Your task to perform on an android device: Open Google Image 0: 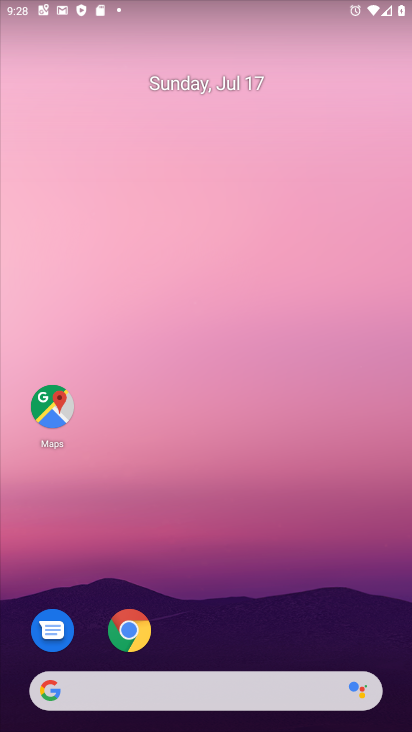
Step 0: press home button
Your task to perform on an android device: Open Google Image 1: 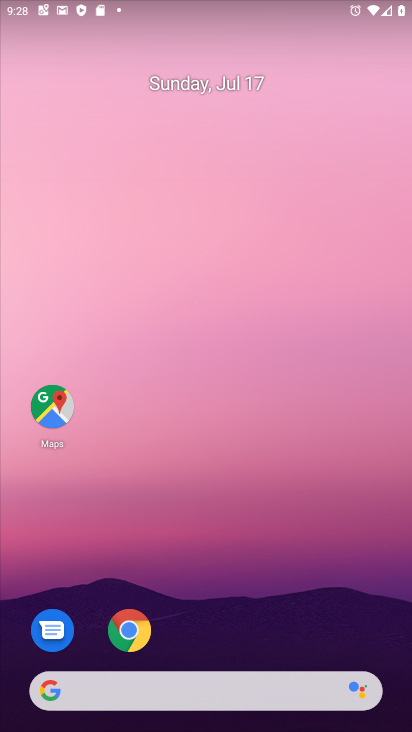
Step 1: drag from (308, 629) to (288, 199)
Your task to perform on an android device: Open Google Image 2: 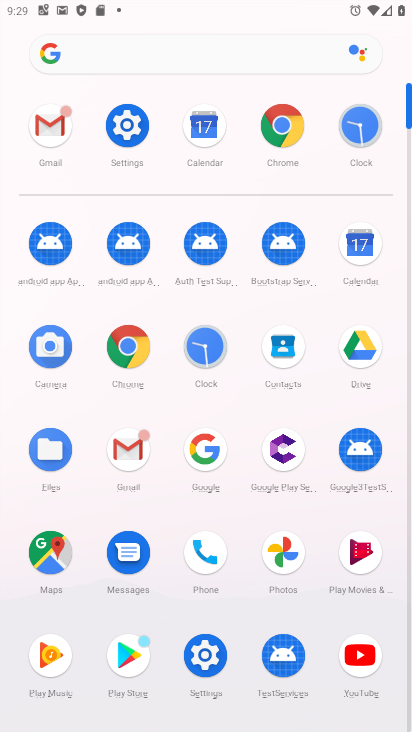
Step 2: click (200, 453)
Your task to perform on an android device: Open Google Image 3: 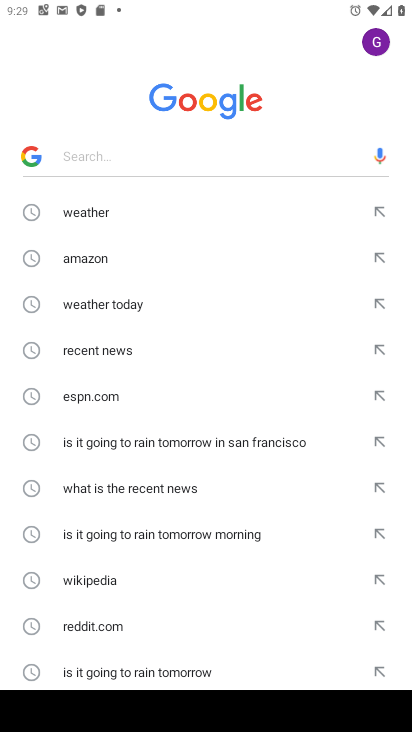
Step 3: task complete